Your task to perform on an android device: When is my next meeting? Image 0: 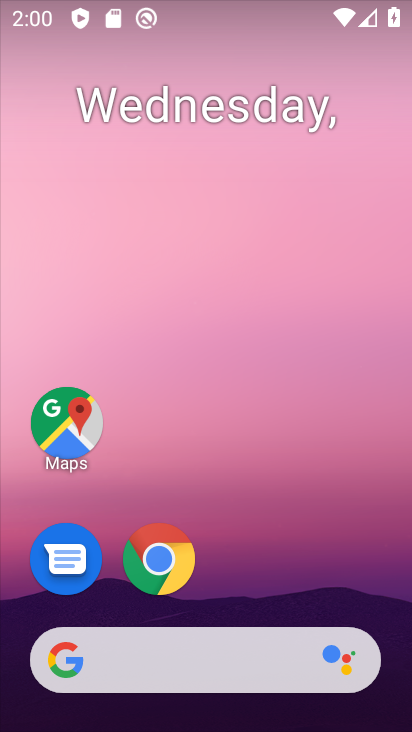
Step 0: drag from (221, 587) to (267, 24)
Your task to perform on an android device: When is my next meeting? Image 1: 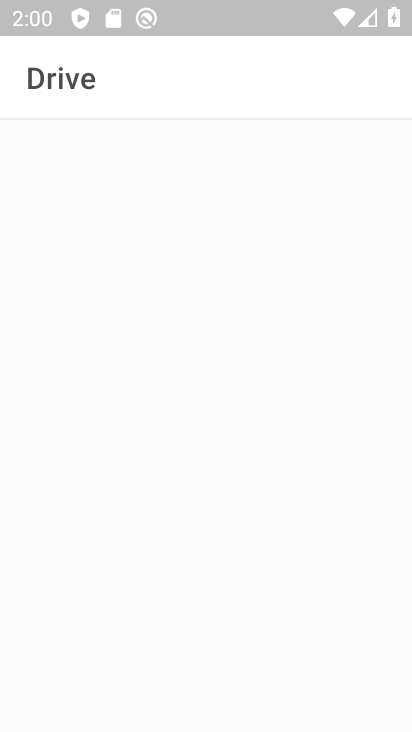
Step 1: press back button
Your task to perform on an android device: When is my next meeting? Image 2: 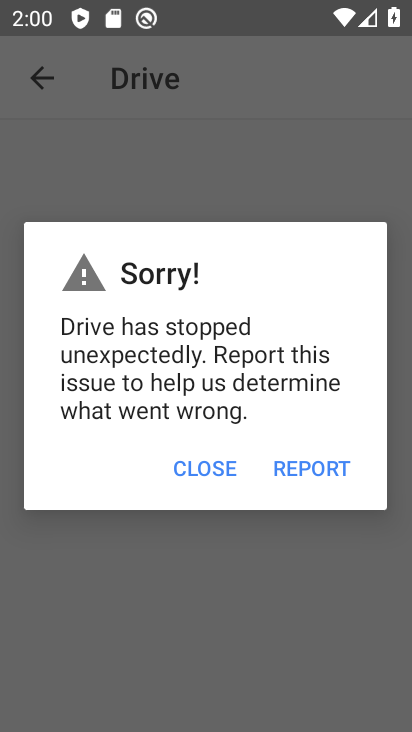
Step 2: press back button
Your task to perform on an android device: When is my next meeting? Image 3: 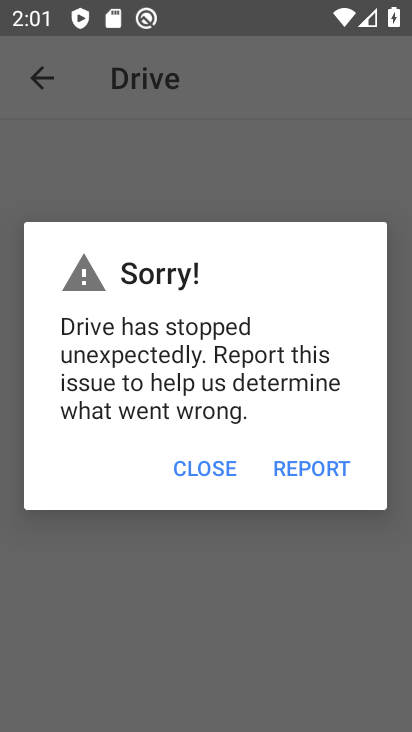
Step 3: press home button
Your task to perform on an android device: When is my next meeting? Image 4: 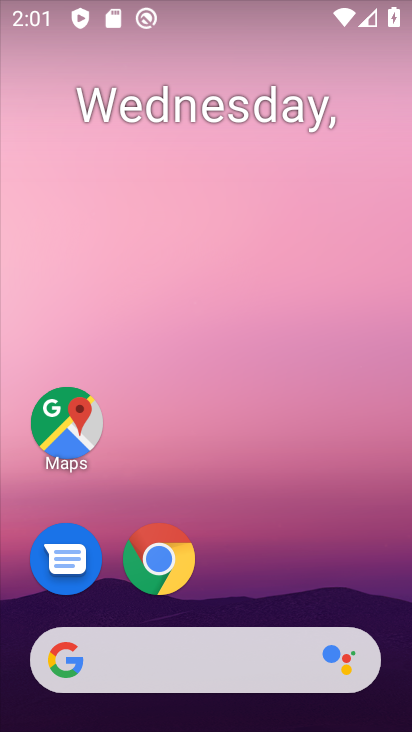
Step 4: drag from (240, 574) to (243, 20)
Your task to perform on an android device: When is my next meeting? Image 5: 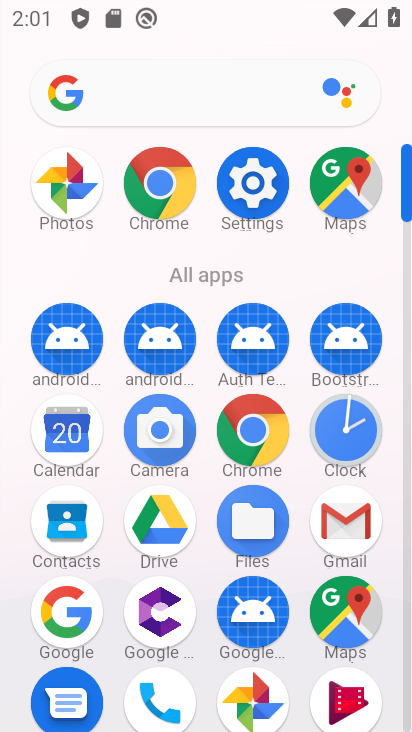
Step 5: click (66, 435)
Your task to perform on an android device: When is my next meeting? Image 6: 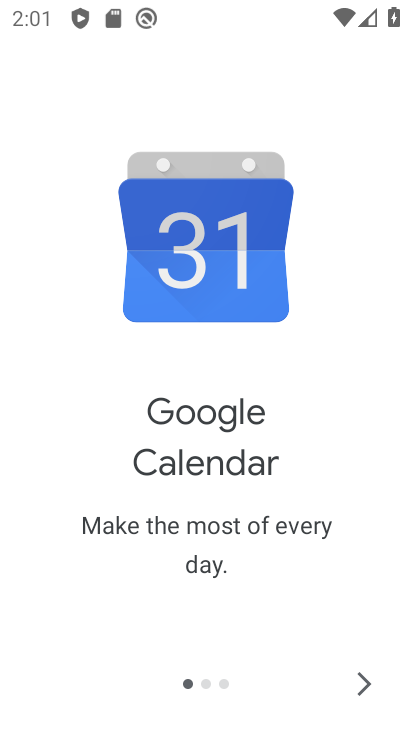
Step 6: click (382, 676)
Your task to perform on an android device: When is my next meeting? Image 7: 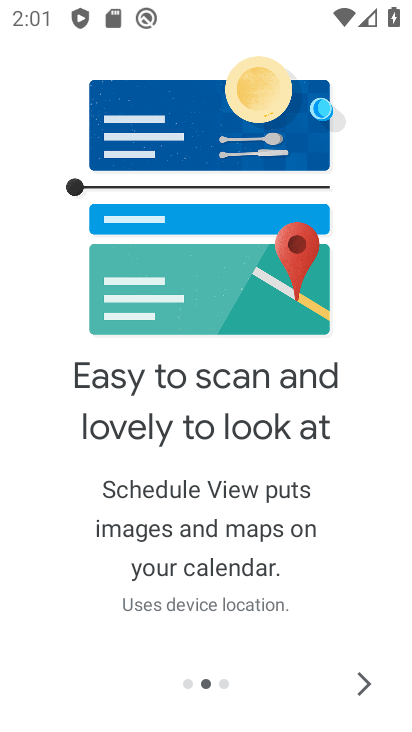
Step 7: click (374, 680)
Your task to perform on an android device: When is my next meeting? Image 8: 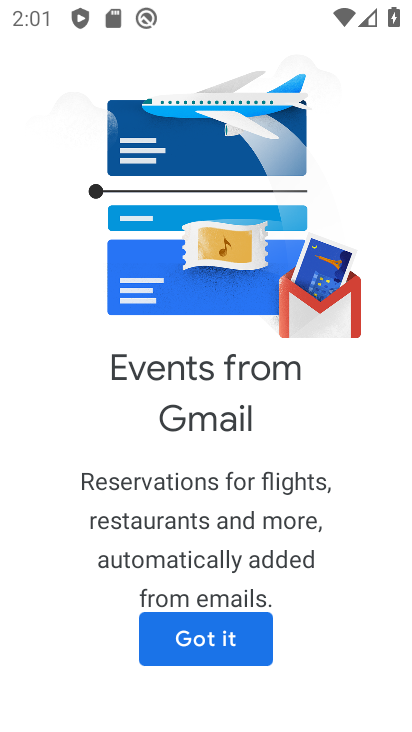
Step 8: click (224, 633)
Your task to perform on an android device: When is my next meeting? Image 9: 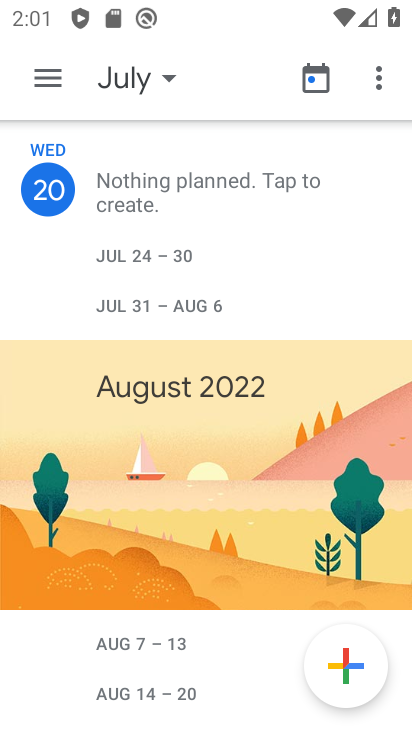
Step 9: task complete